Your task to perform on an android device: Open location settings Image 0: 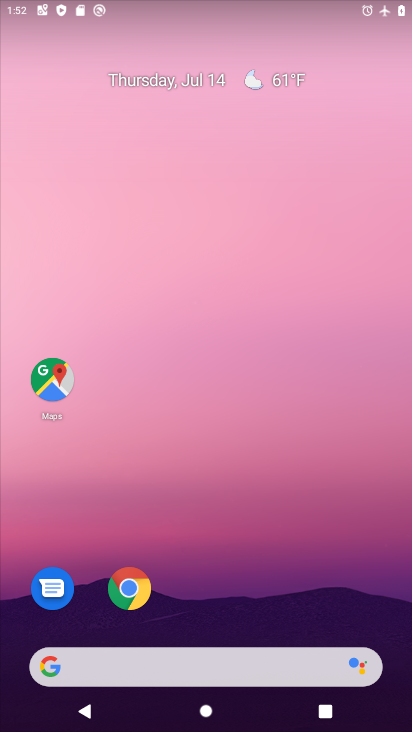
Step 0: drag from (260, 586) to (258, 101)
Your task to perform on an android device: Open location settings Image 1: 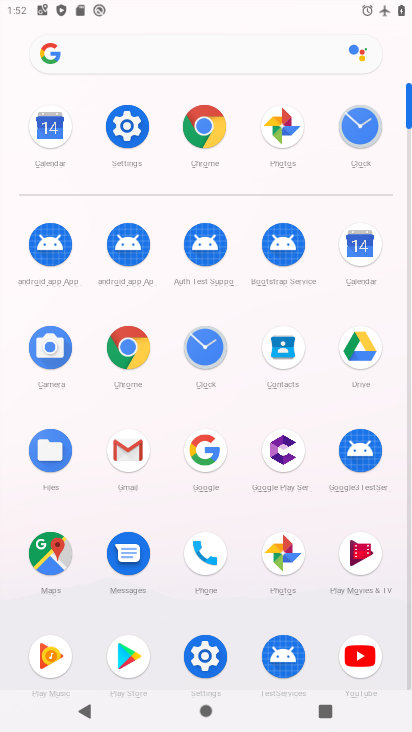
Step 1: click (135, 129)
Your task to perform on an android device: Open location settings Image 2: 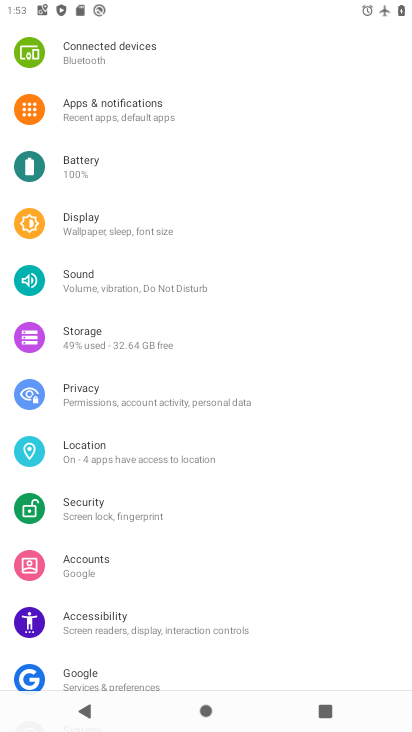
Step 2: click (117, 451)
Your task to perform on an android device: Open location settings Image 3: 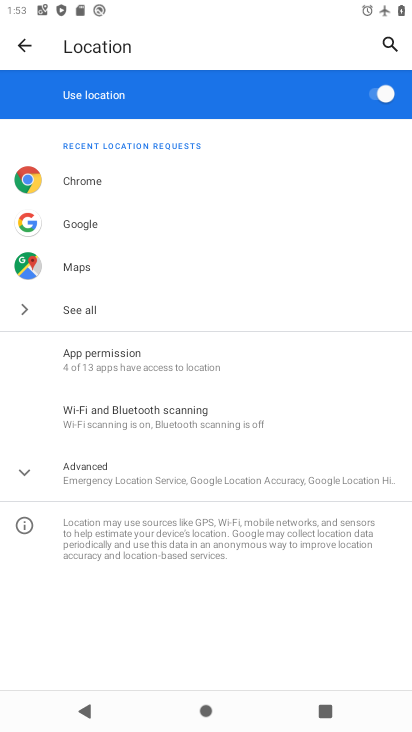
Step 3: task complete